Your task to perform on an android device: Toggle the flashlight Image 0: 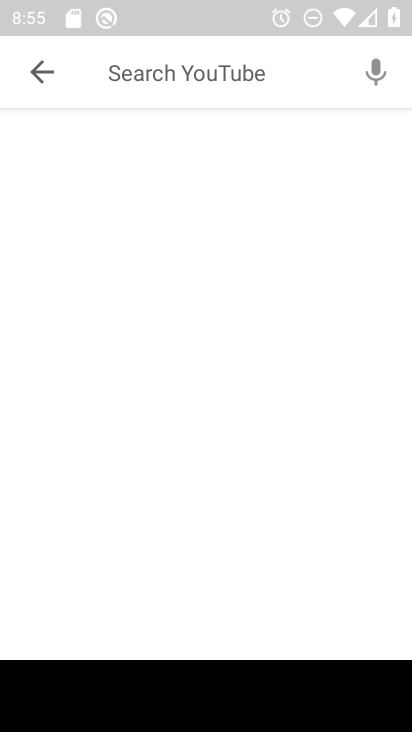
Step 0: press home button
Your task to perform on an android device: Toggle the flashlight Image 1: 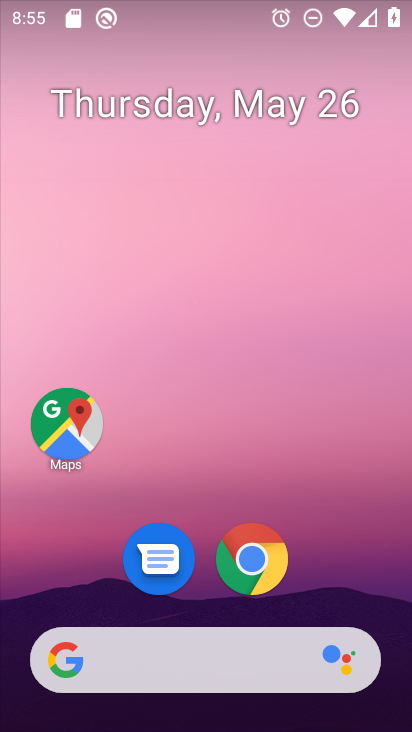
Step 1: drag from (329, 526) to (389, 83)
Your task to perform on an android device: Toggle the flashlight Image 2: 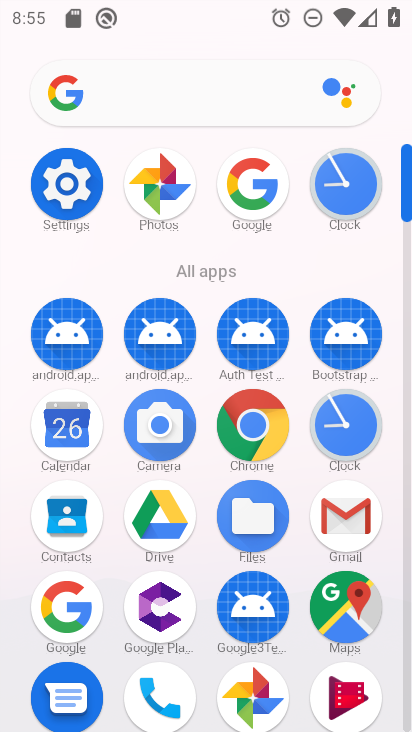
Step 2: click (69, 174)
Your task to perform on an android device: Toggle the flashlight Image 3: 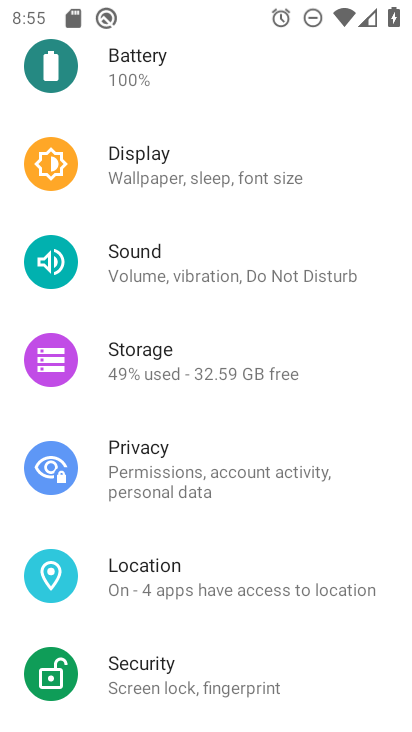
Step 3: drag from (247, 122) to (260, 596)
Your task to perform on an android device: Toggle the flashlight Image 4: 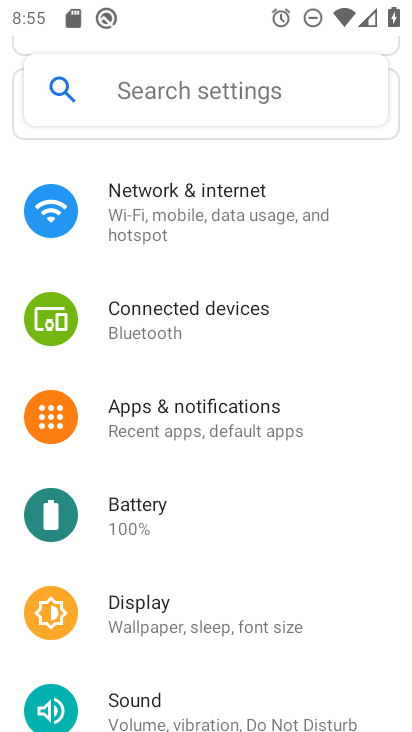
Step 4: click (164, 95)
Your task to perform on an android device: Toggle the flashlight Image 5: 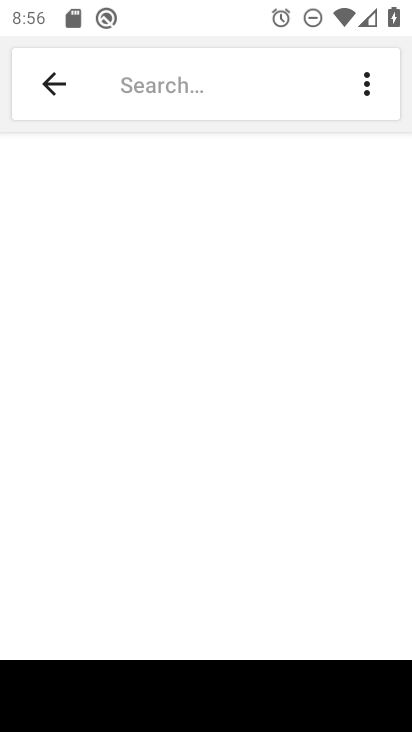
Step 5: type "flash"
Your task to perform on an android device: Toggle the flashlight Image 6: 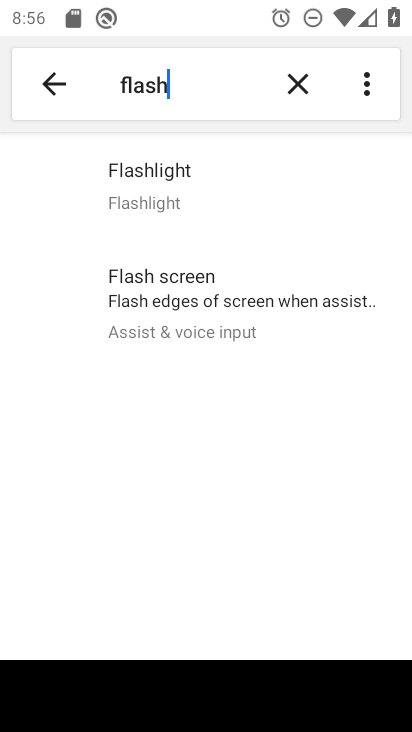
Step 6: task complete